Your task to perform on an android device: open chrome and create a bookmark for the current page Image 0: 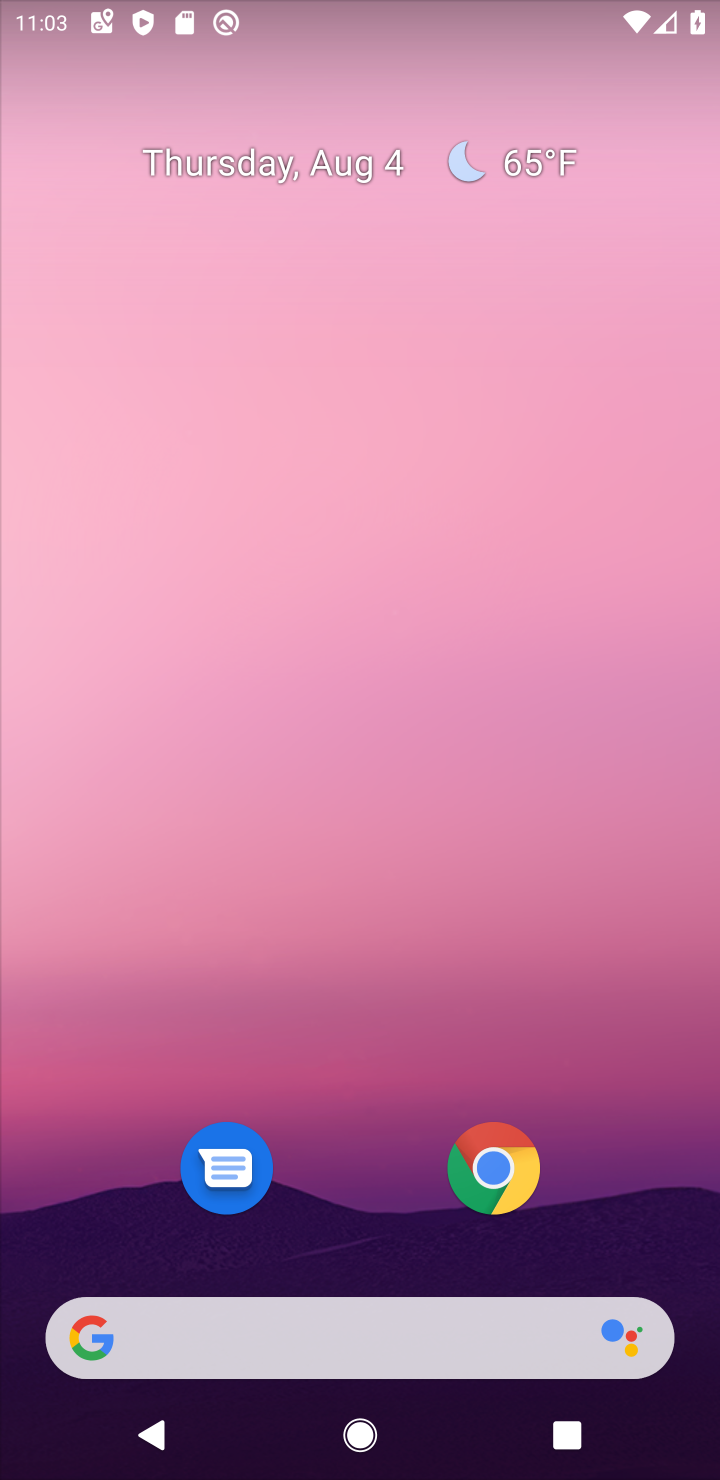
Step 0: drag from (617, 1249) to (372, 137)
Your task to perform on an android device: open chrome and create a bookmark for the current page Image 1: 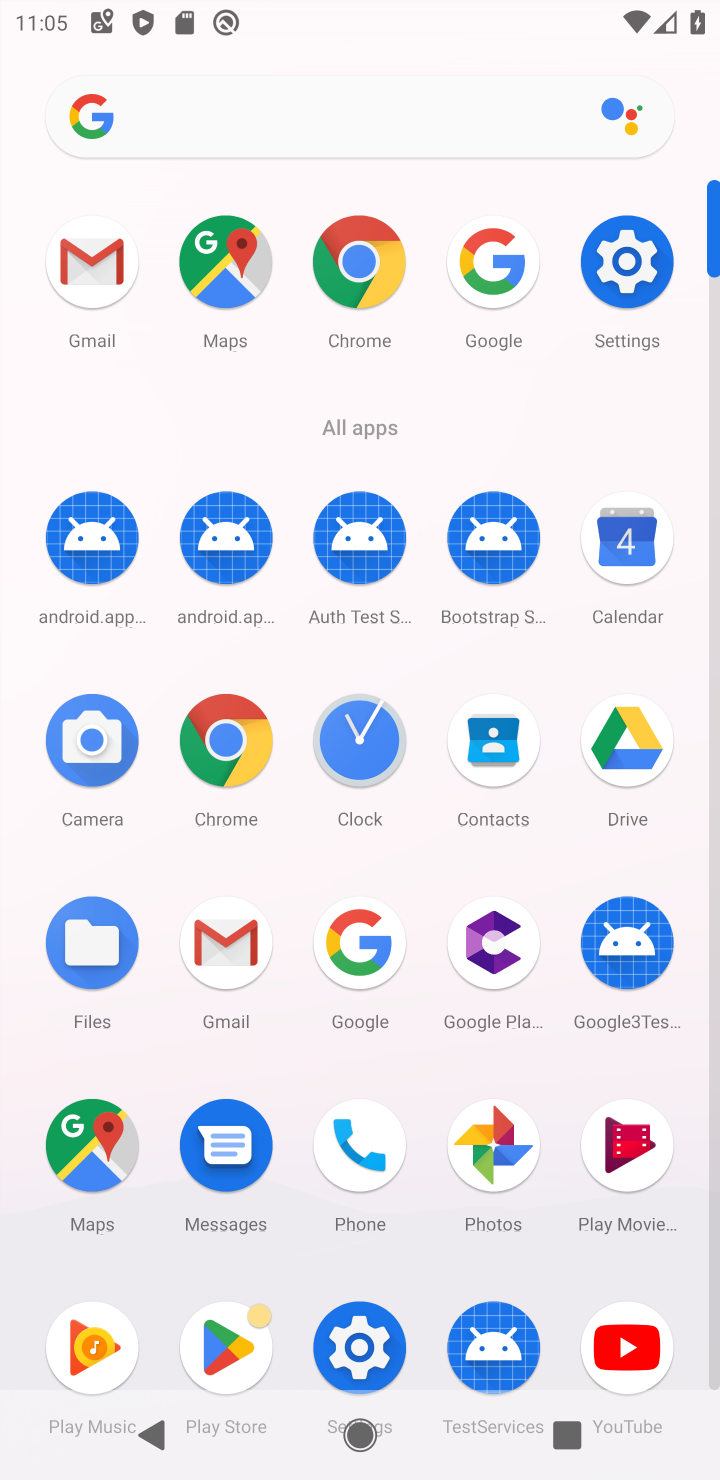
Step 1: click (373, 257)
Your task to perform on an android device: open chrome and create a bookmark for the current page Image 2: 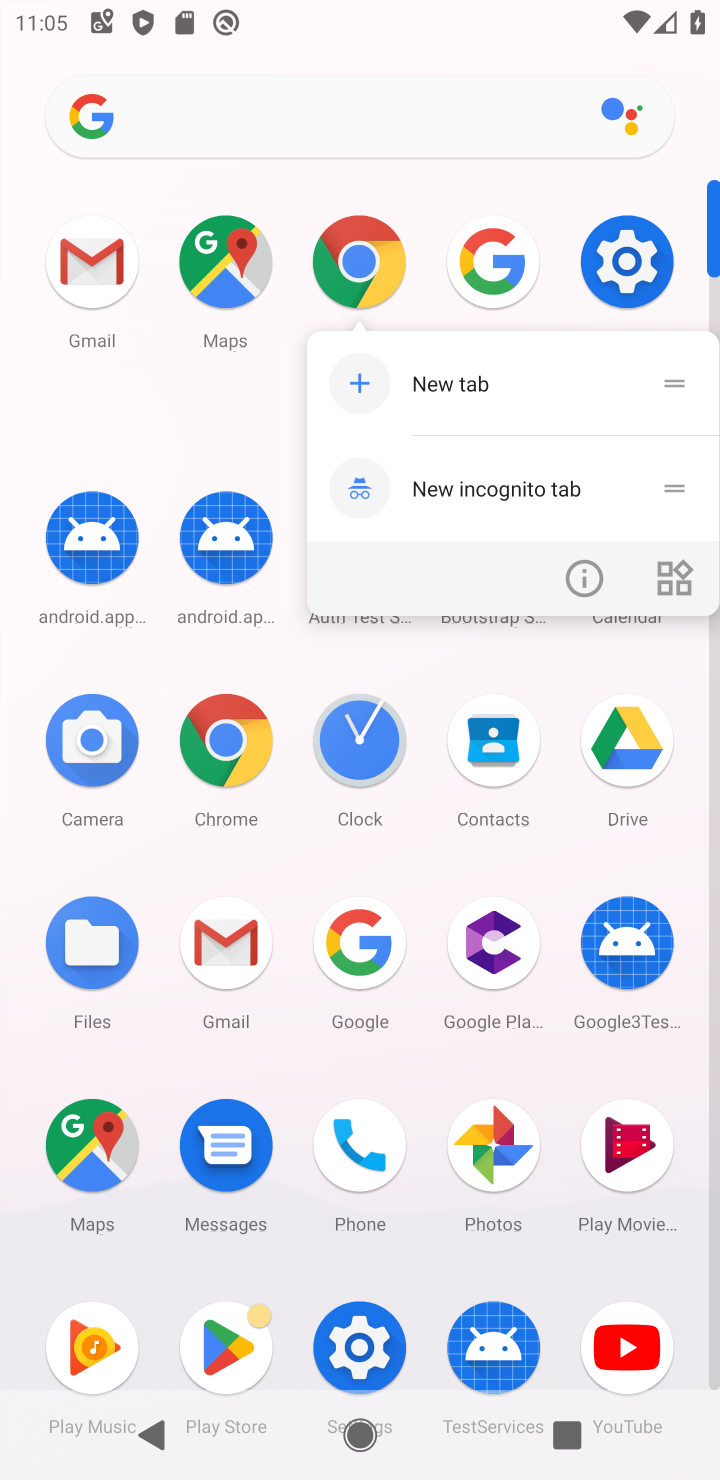
Step 2: click (373, 257)
Your task to perform on an android device: open chrome and create a bookmark for the current page Image 3: 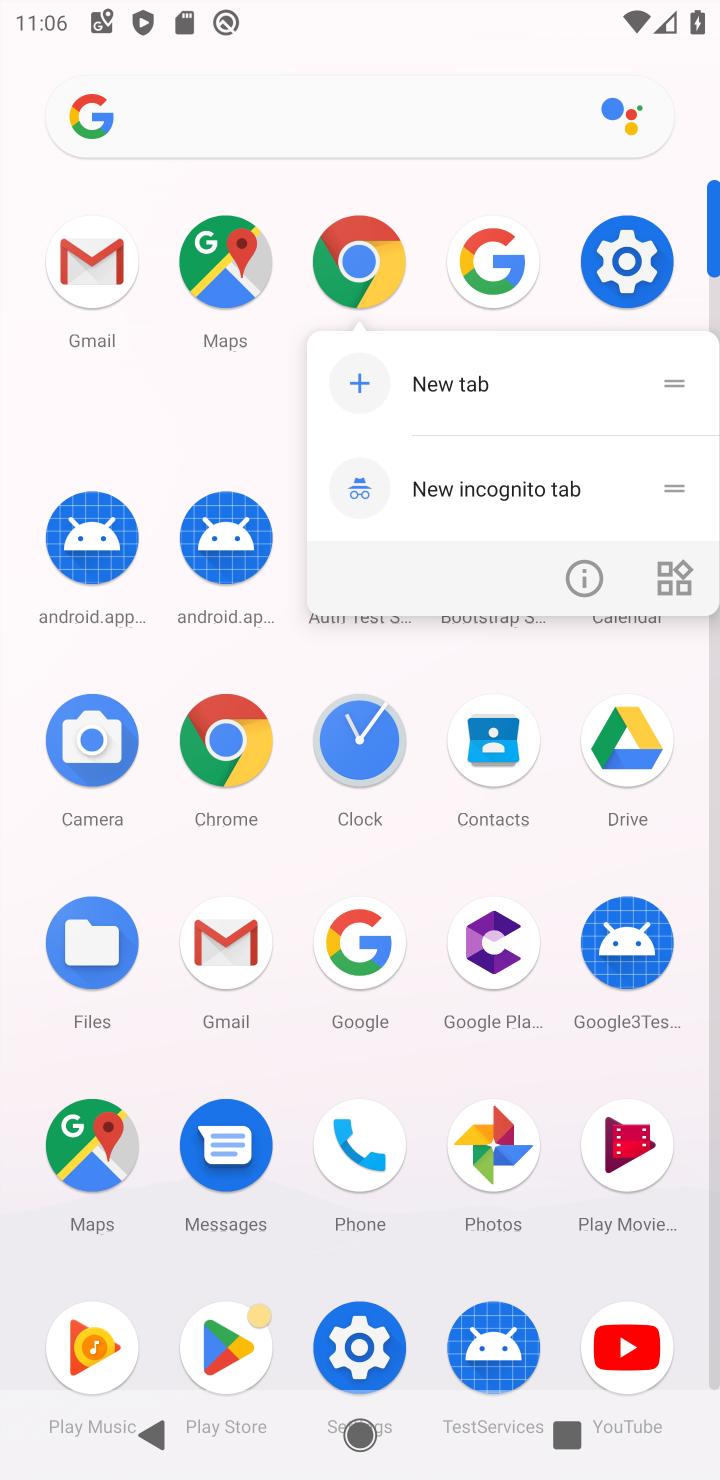
Step 3: click (373, 257)
Your task to perform on an android device: open chrome and create a bookmark for the current page Image 4: 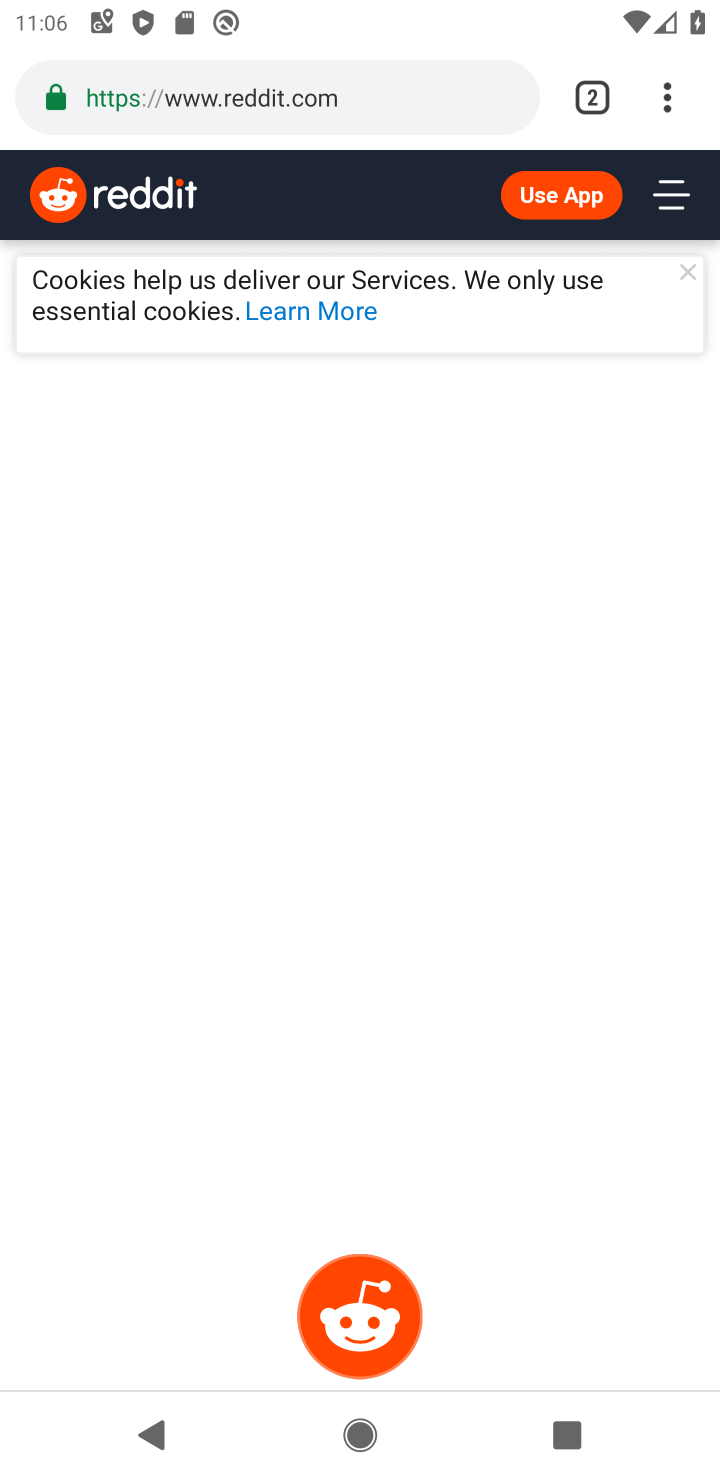
Step 4: click (686, 102)
Your task to perform on an android device: open chrome and create a bookmark for the current page Image 5: 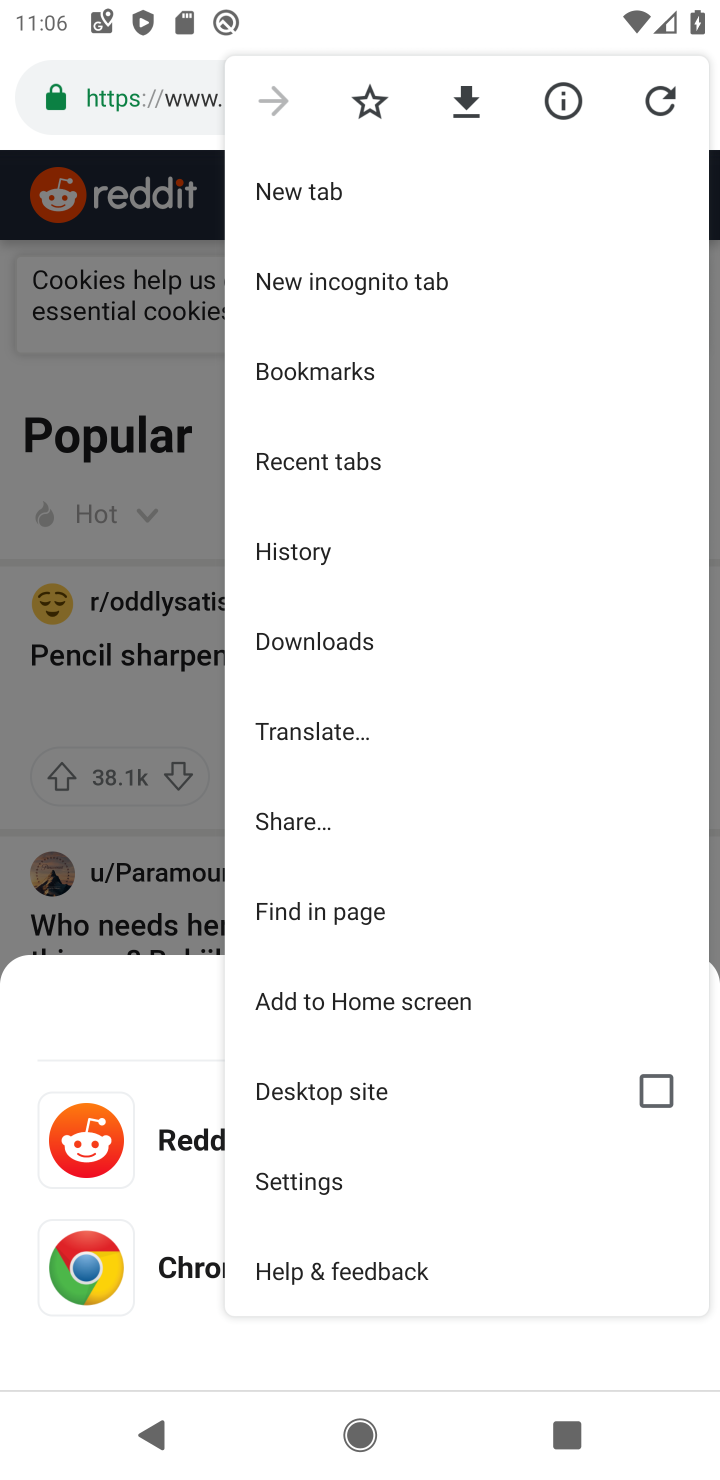
Step 5: click (362, 99)
Your task to perform on an android device: open chrome and create a bookmark for the current page Image 6: 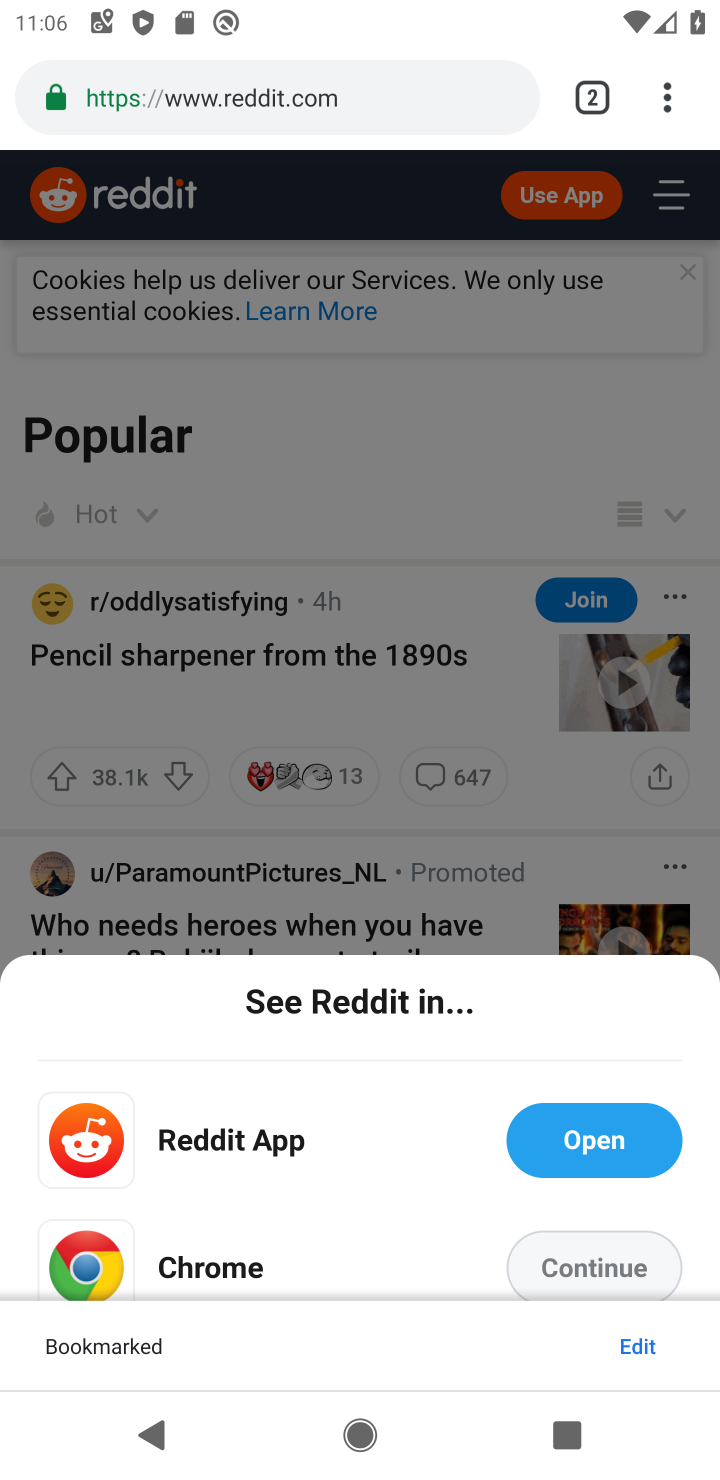
Step 6: task complete